Your task to perform on an android device: Open Google Chrome and click the shortcut for Amazon.com Image 0: 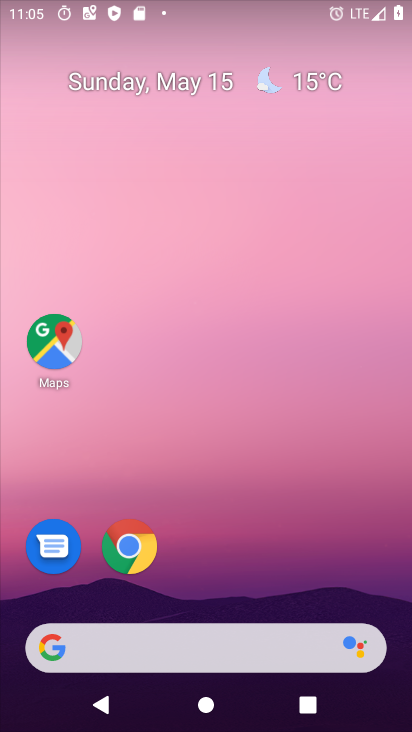
Step 0: drag from (278, 675) to (199, 164)
Your task to perform on an android device: Open Google Chrome and click the shortcut for Amazon.com Image 1: 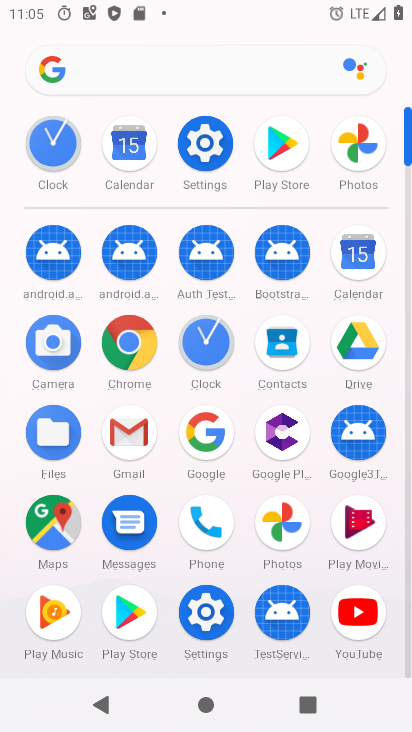
Step 1: click (130, 344)
Your task to perform on an android device: Open Google Chrome and click the shortcut for Amazon.com Image 2: 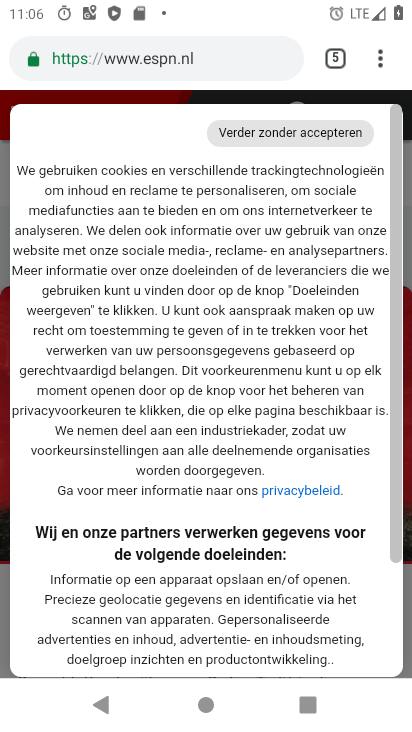
Step 2: press back button
Your task to perform on an android device: Open Google Chrome and click the shortcut for Amazon.com Image 3: 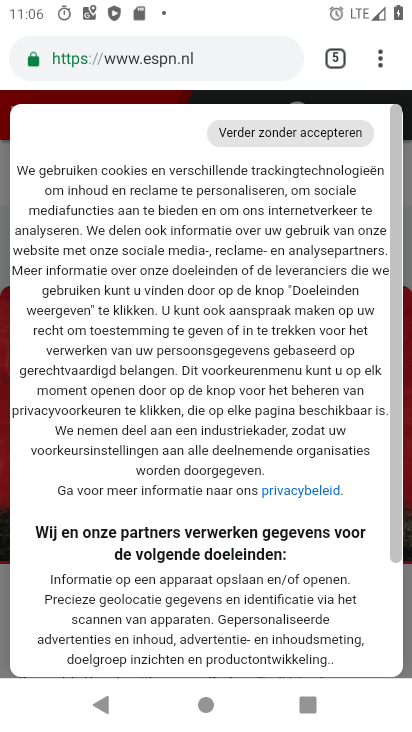
Step 3: press back button
Your task to perform on an android device: Open Google Chrome and click the shortcut for Amazon.com Image 4: 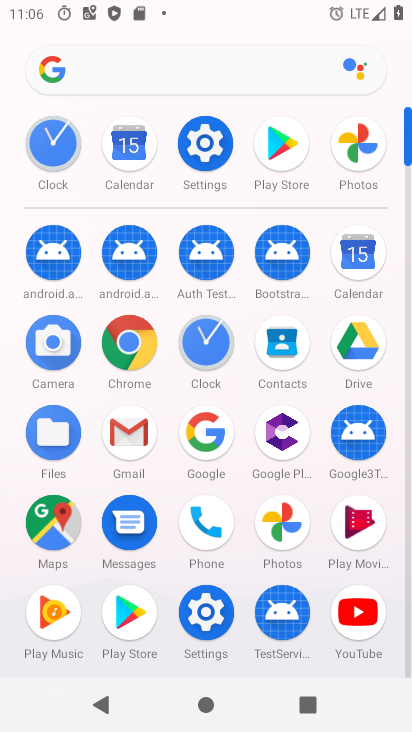
Step 4: click (127, 347)
Your task to perform on an android device: Open Google Chrome and click the shortcut for Amazon.com Image 5: 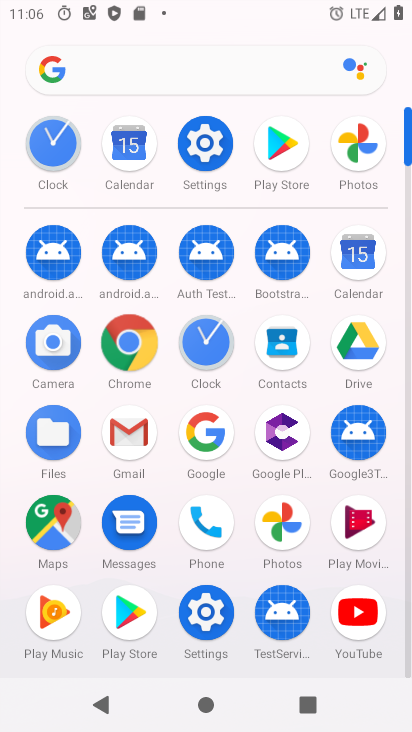
Step 5: click (125, 347)
Your task to perform on an android device: Open Google Chrome and click the shortcut for Amazon.com Image 6: 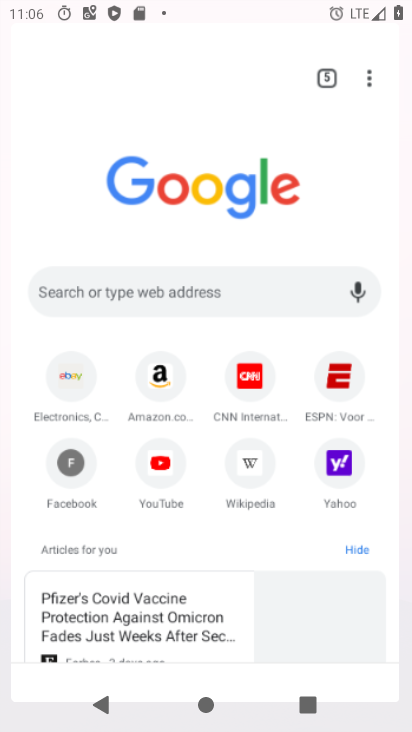
Step 6: click (124, 348)
Your task to perform on an android device: Open Google Chrome and click the shortcut for Amazon.com Image 7: 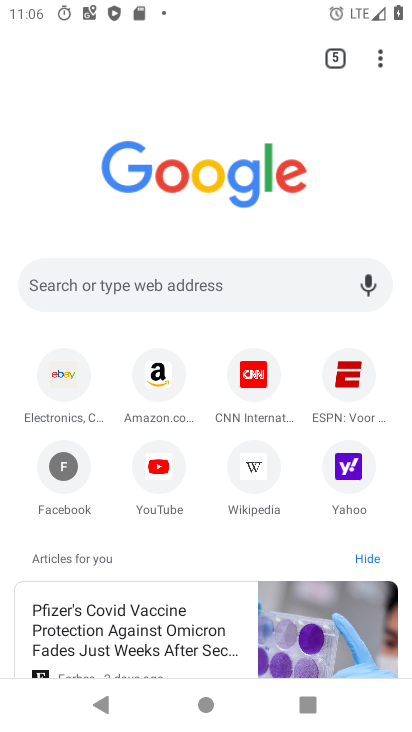
Step 7: click (164, 383)
Your task to perform on an android device: Open Google Chrome and click the shortcut for Amazon.com Image 8: 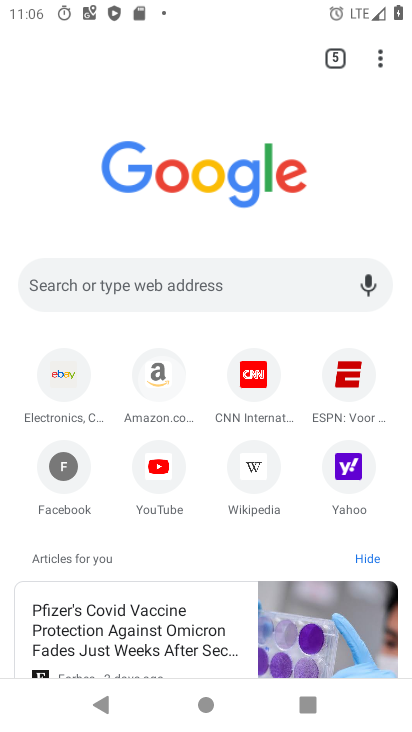
Step 8: click (160, 380)
Your task to perform on an android device: Open Google Chrome and click the shortcut for Amazon.com Image 9: 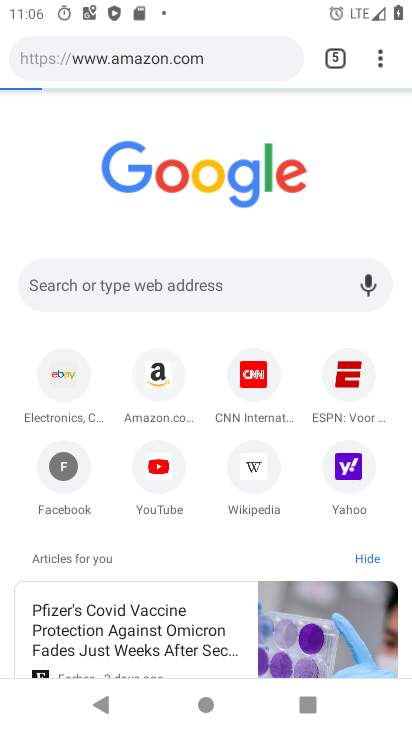
Step 9: click (160, 380)
Your task to perform on an android device: Open Google Chrome and click the shortcut for Amazon.com Image 10: 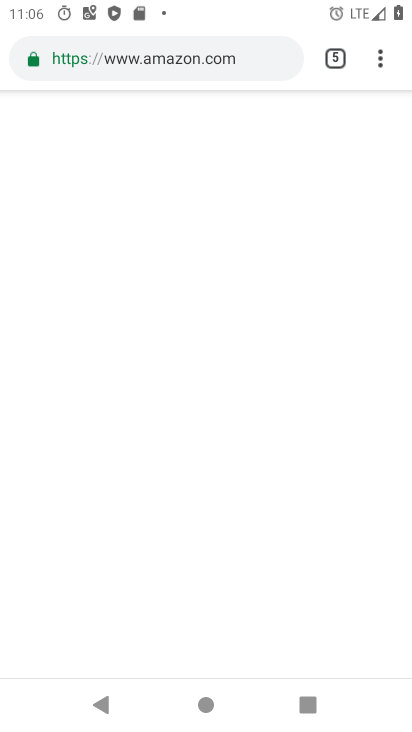
Step 10: click (158, 380)
Your task to perform on an android device: Open Google Chrome and click the shortcut for Amazon.com Image 11: 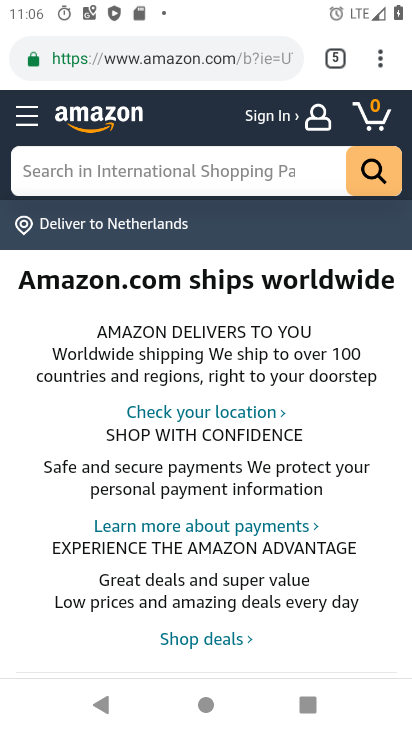
Step 11: task complete